Your task to perform on an android device: find snoozed emails in the gmail app Image 0: 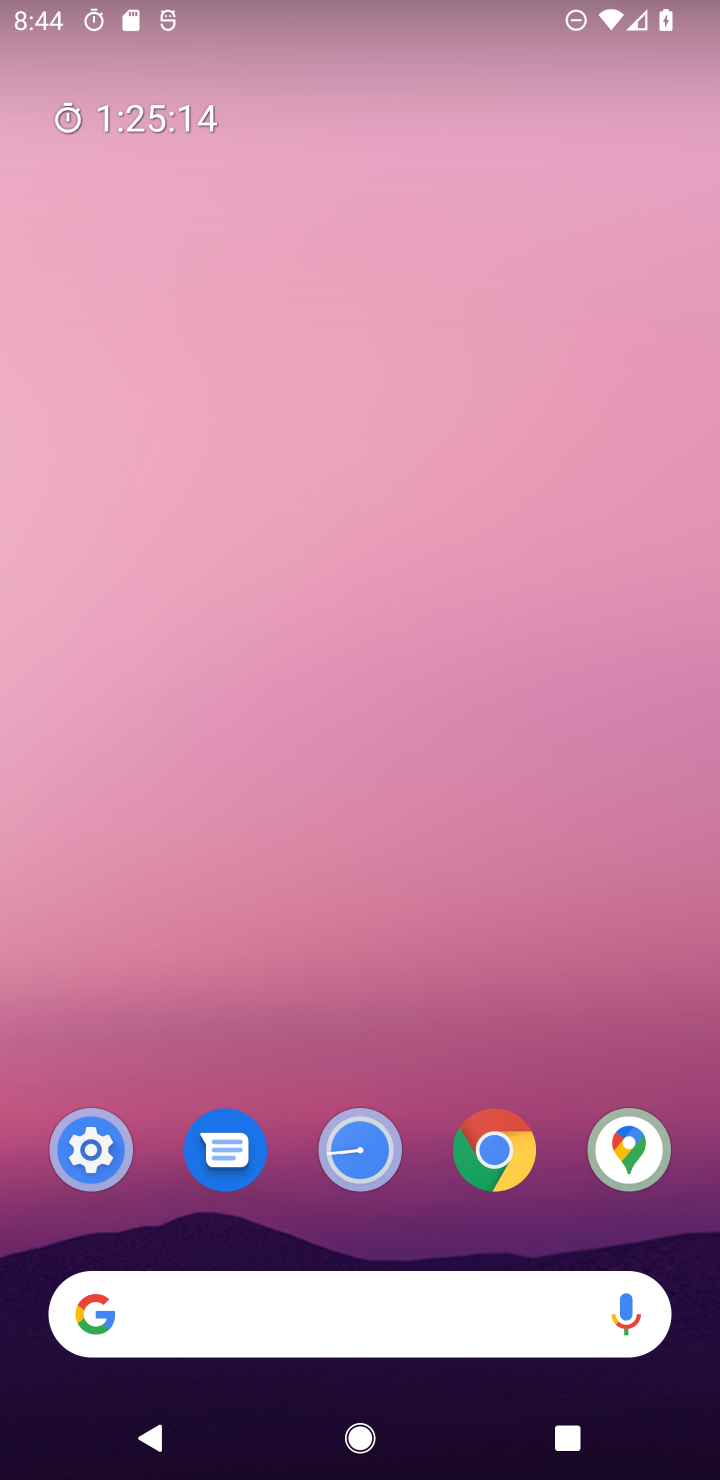
Step 0: drag from (431, 1329) to (514, 90)
Your task to perform on an android device: find snoozed emails in the gmail app Image 1: 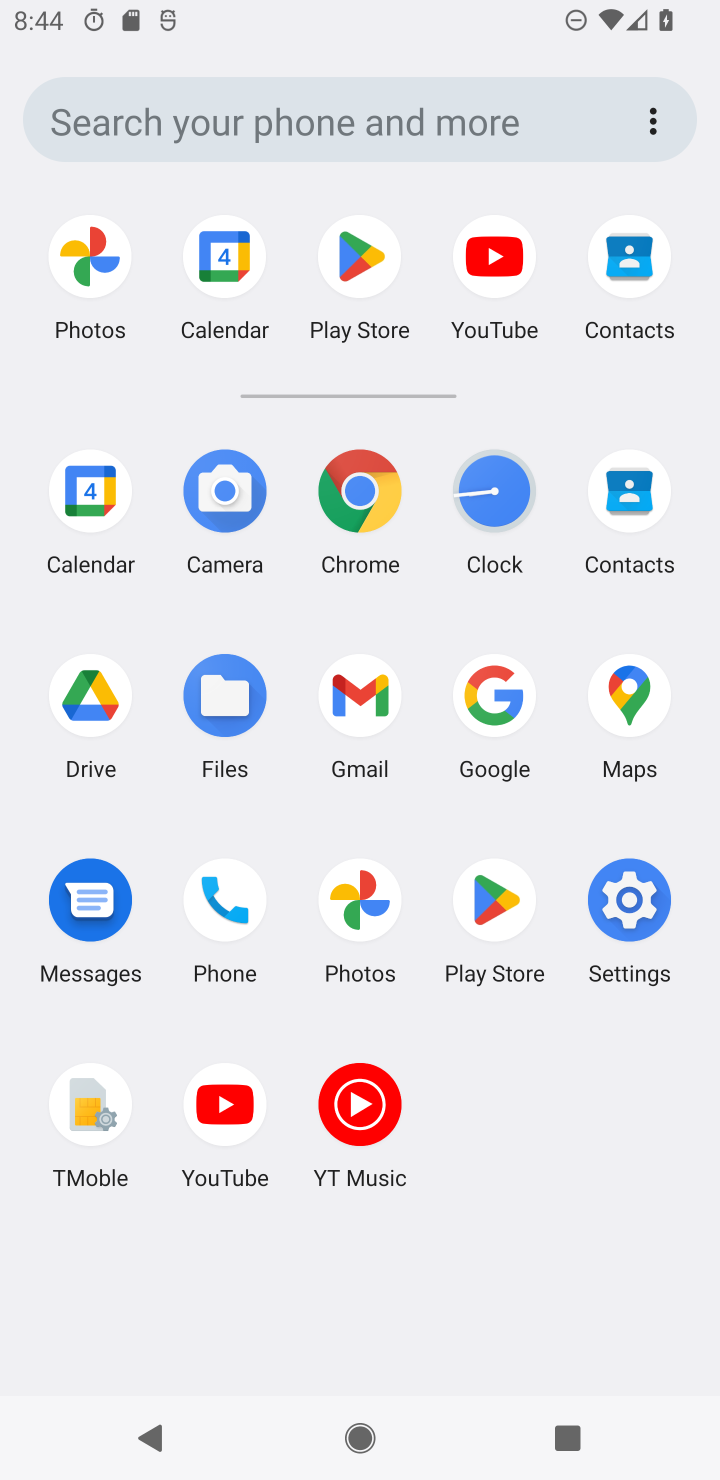
Step 1: click (338, 718)
Your task to perform on an android device: find snoozed emails in the gmail app Image 2: 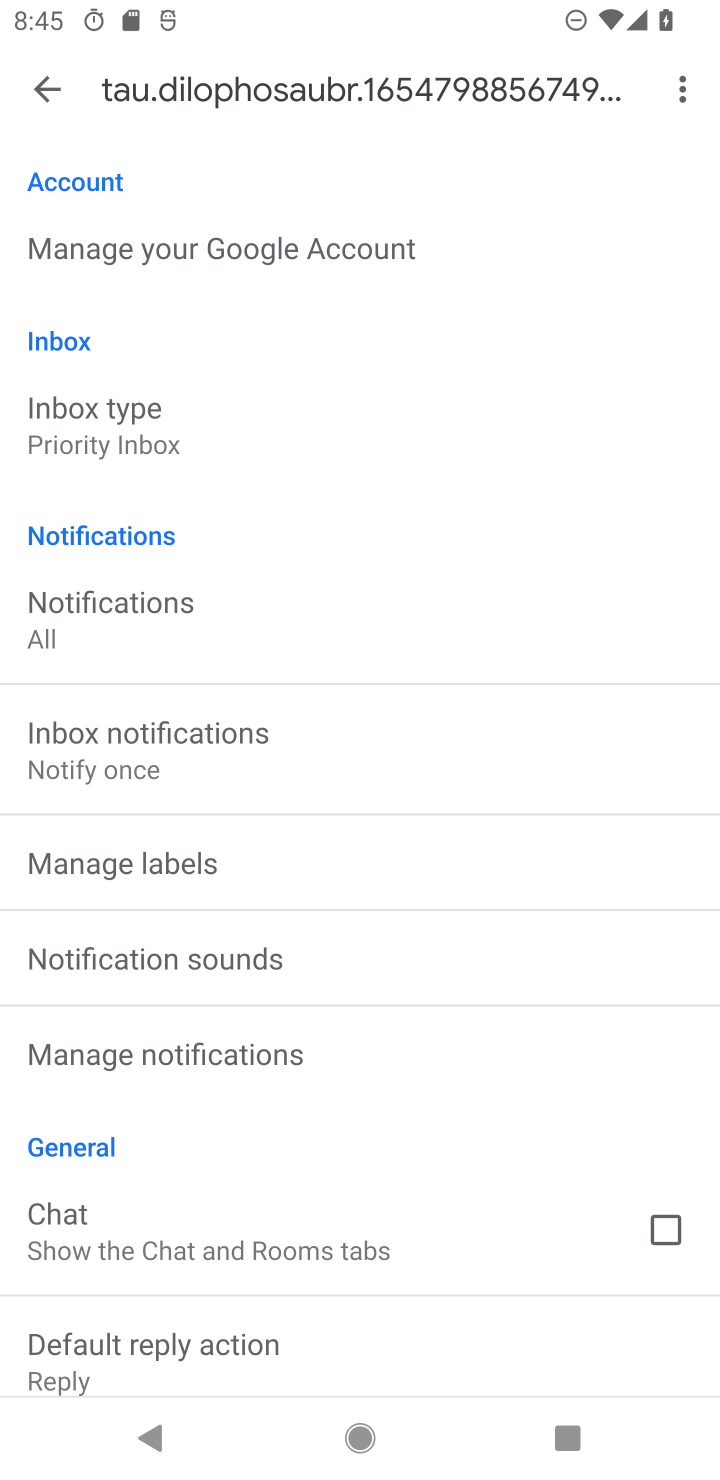
Step 2: press back button
Your task to perform on an android device: find snoozed emails in the gmail app Image 3: 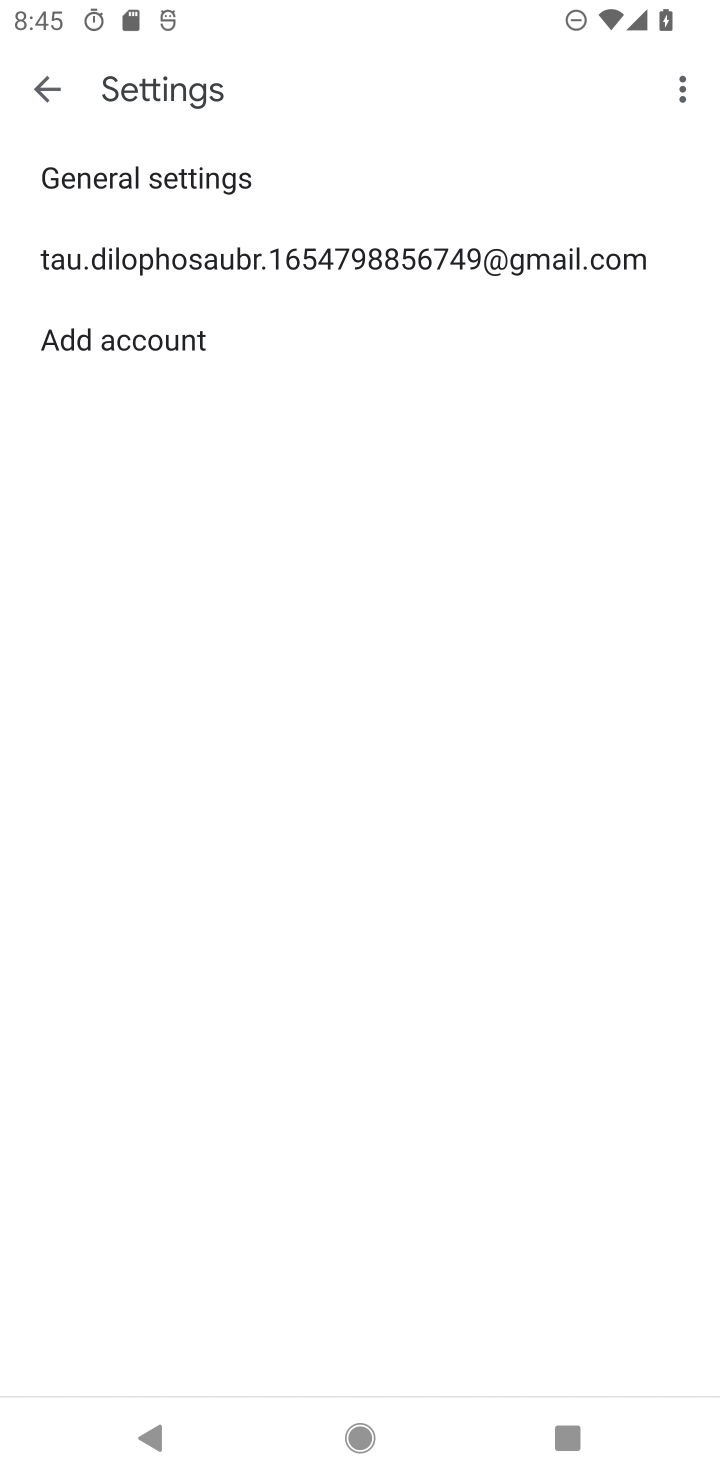
Step 3: press back button
Your task to perform on an android device: find snoozed emails in the gmail app Image 4: 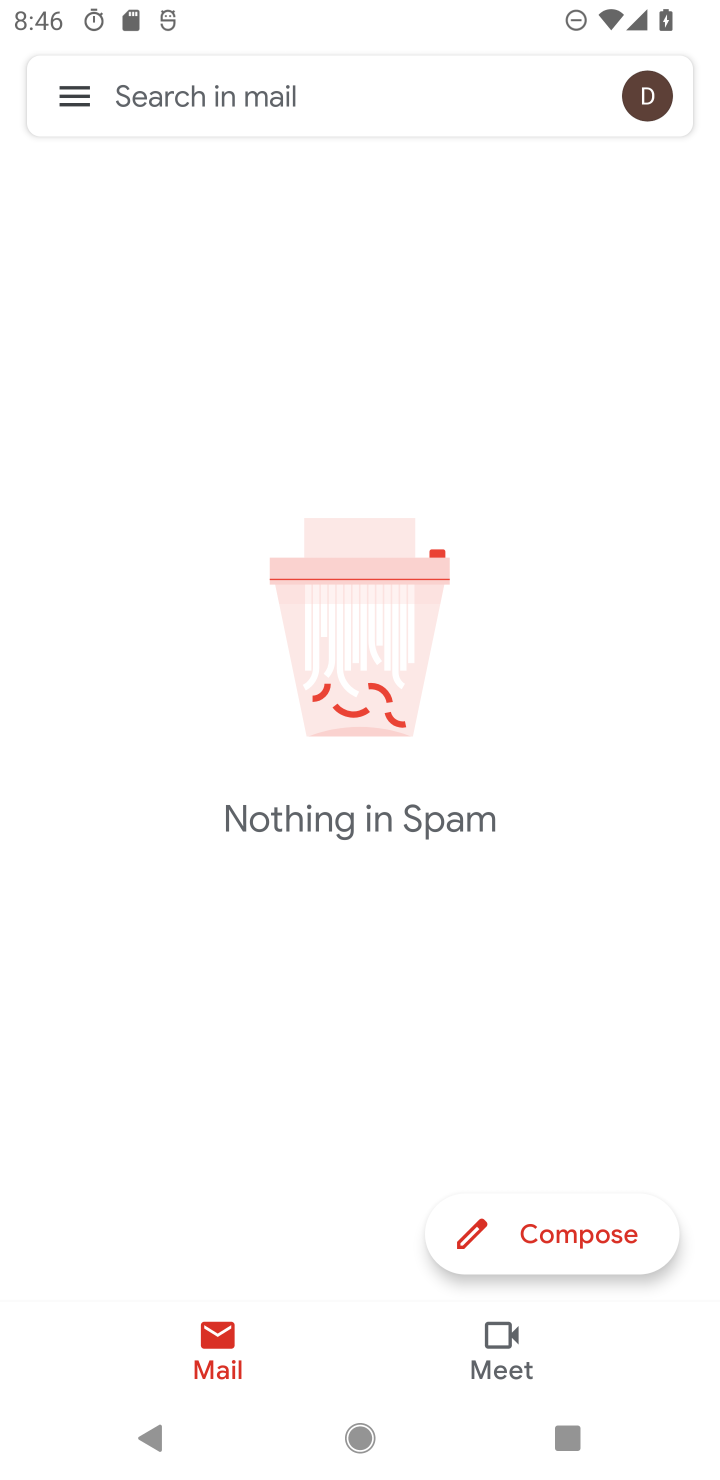
Step 4: click (83, 90)
Your task to perform on an android device: find snoozed emails in the gmail app Image 5: 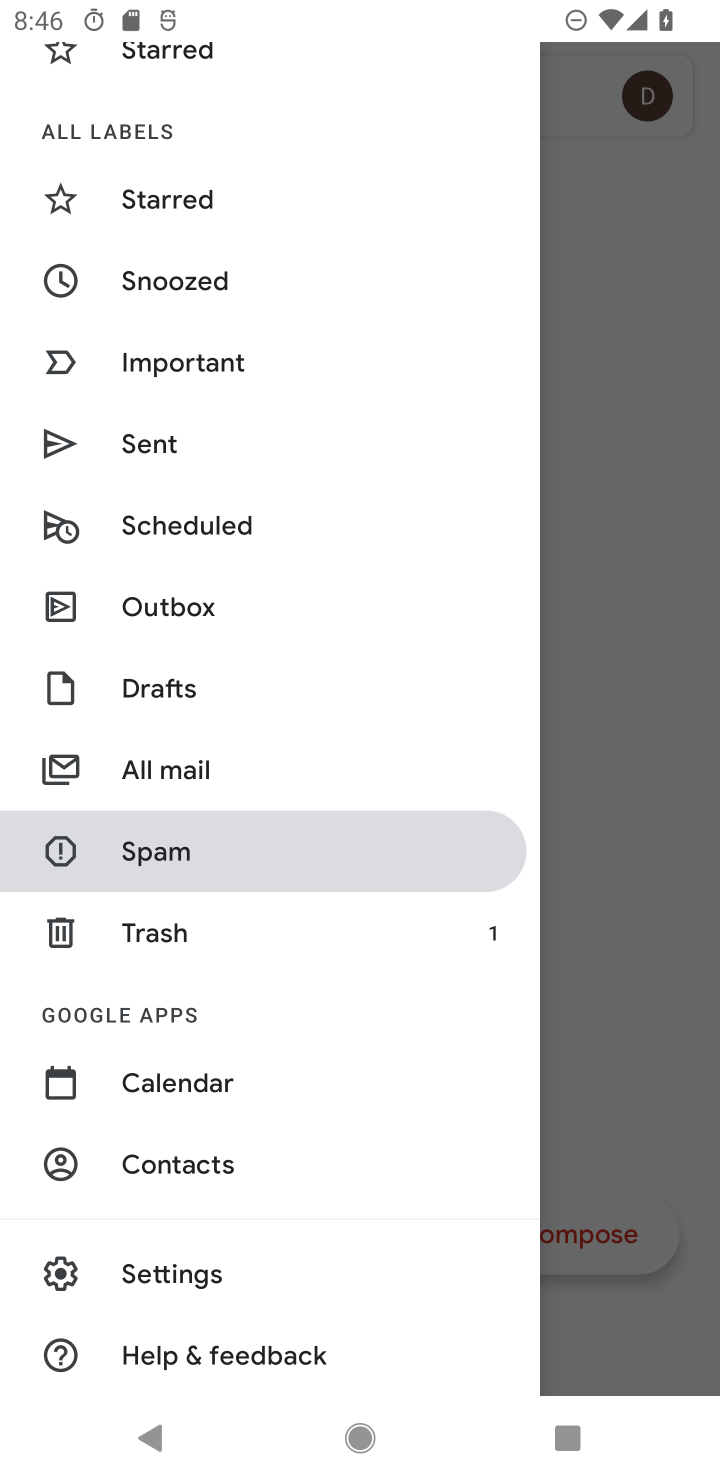
Step 5: click (188, 256)
Your task to perform on an android device: find snoozed emails in the gmail app Image 6: 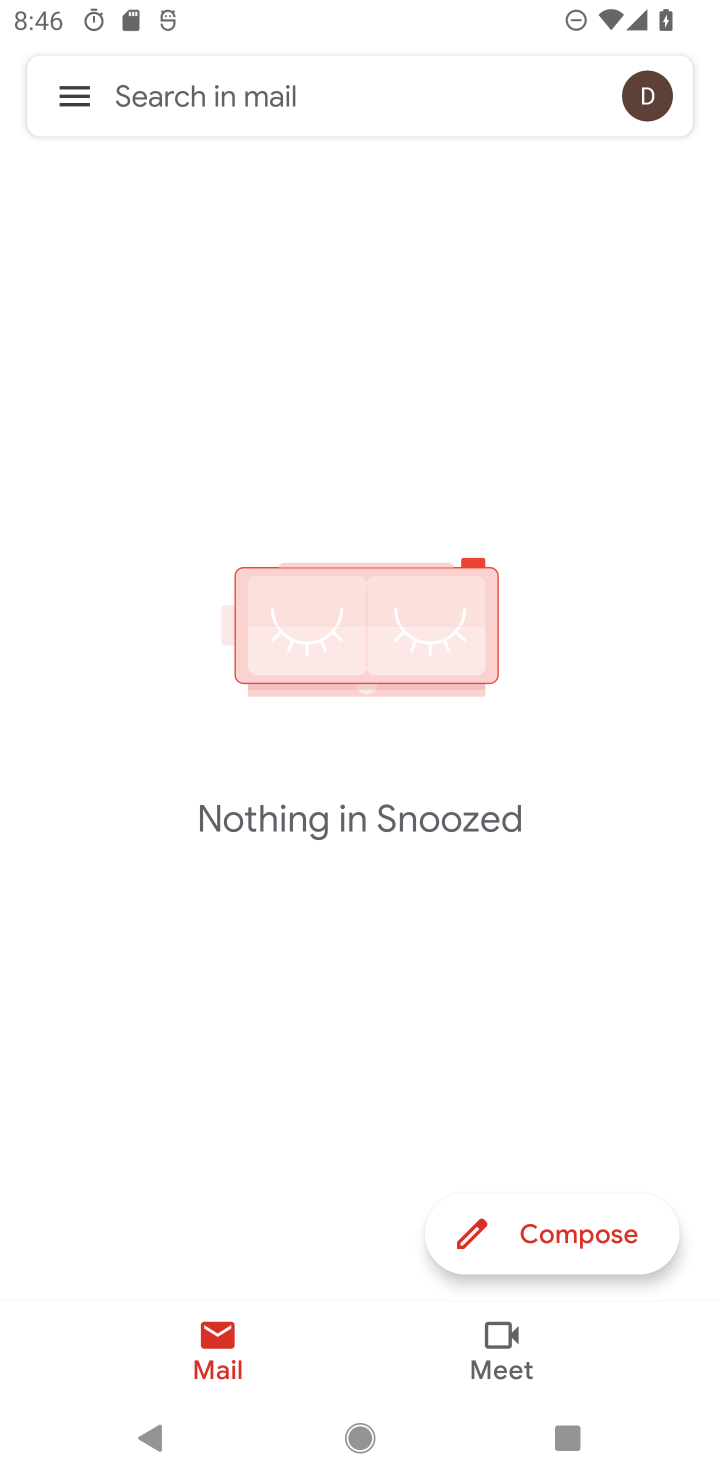
Step 6: task complete